Your task to perform on an android device: What's on my calendar tomorrow? Image 0: 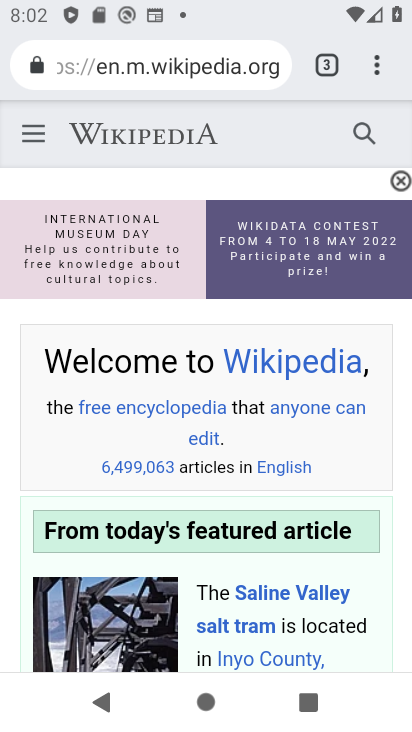
Step 0: press home button
Your task to perform on an android device: What's on my calendar tomorrow? Image 1: 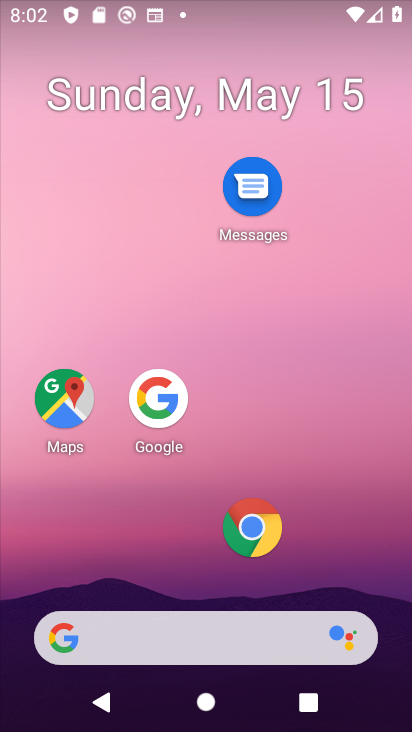
Step 1: drag from (129, 645) to (334, 69)
Your task to perform on an android device: What's on my calendar tomorrow? Image 2: 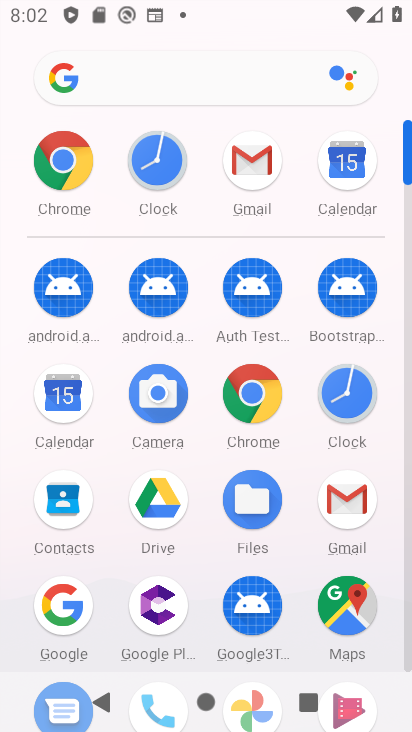
Step 2: click (81, 386)
Your task to perform on an android device: What's on my calendar tomorrow? Image 3: 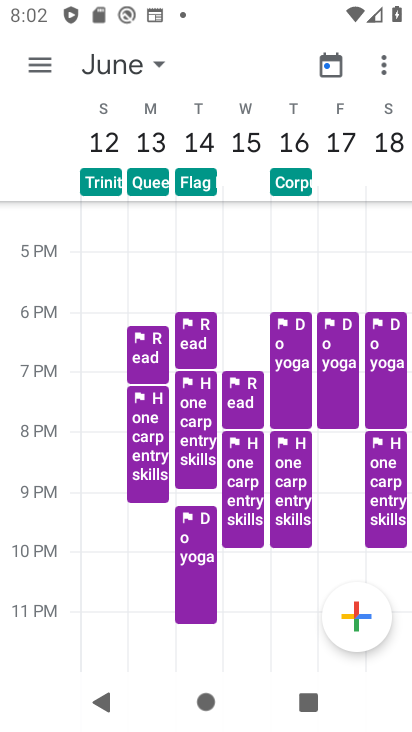
Step 3: click (118, 57)
Your task to perform on an android device: What's on my calendar tomorrow? Image 4: 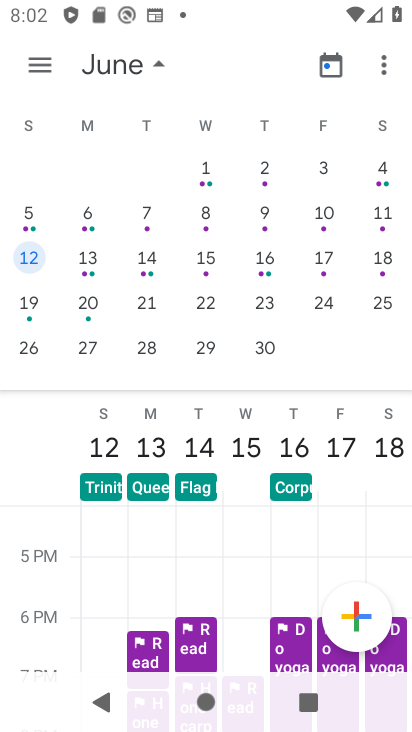
Step 4: drag from (108, 251) to (404, 283)
Your task to perform on an android device: What's on my calendar tomorrow? Image 5: 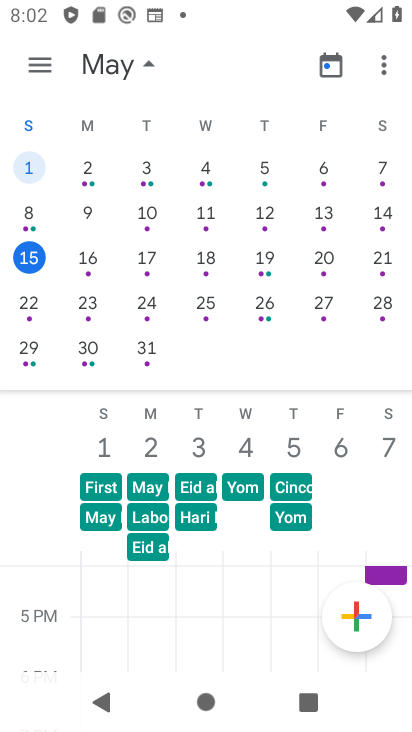
Step 5: drag from (46, 213) to (214, 245)
Your task to perform on an android device: What's on my calendar tomorrow? Image 6: 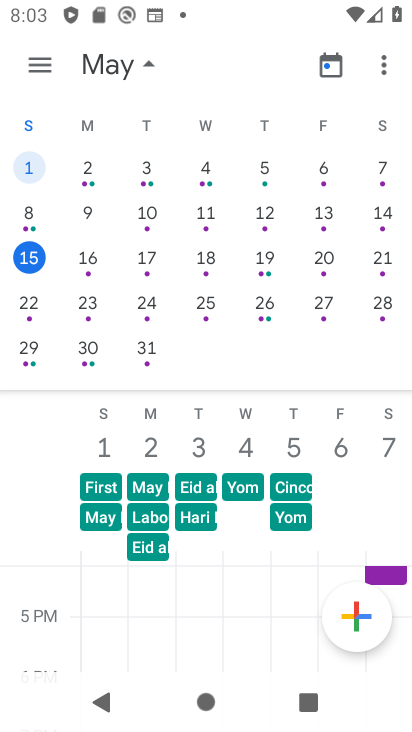
Step 6: click (87, 263)
Your task to perform on an android device: What's on my calendar tomorrow? Image 7: 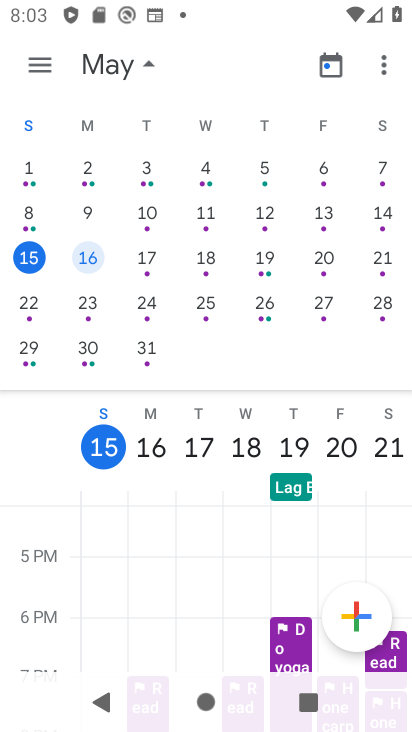
Step 7: click (44, 64)
Your task to perform on an android device: What's on my calendar tomorrow? Image 8: 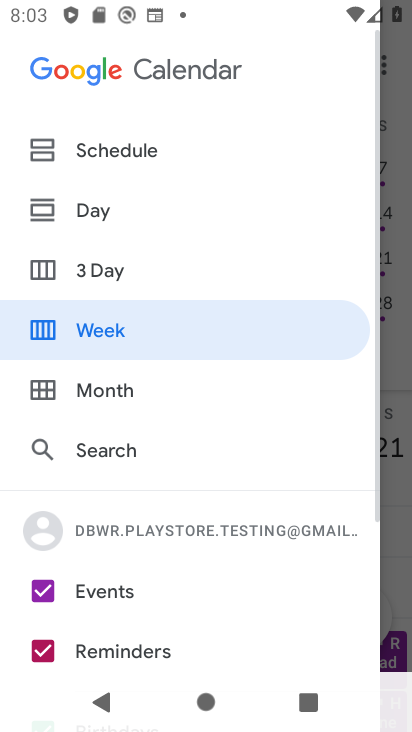
Step 8: click (94, 213)
Your task to perform on an android device: What's on my calendar tomorrow? Image 9: 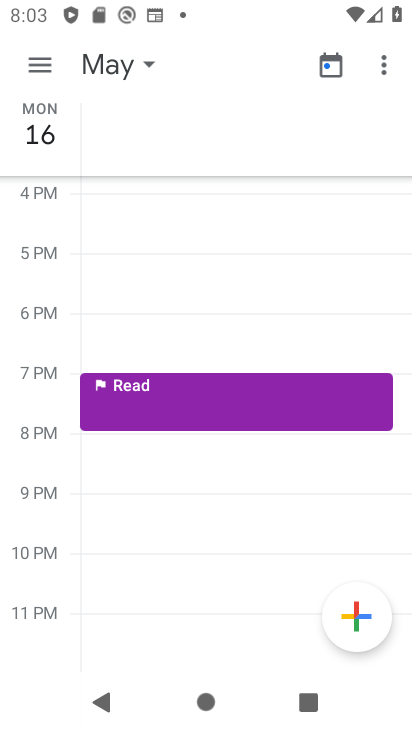
Step 9: click (37, 61)
Your task to perform on an android device: What's on my calendar tomorrow? Image 10: 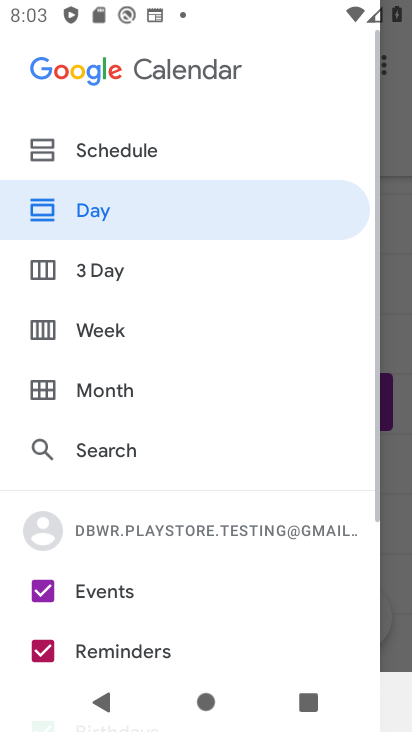
Step 10: click (125, 158)
Your task to perform on an android device: What's on my calendar tomorrow? Image 11: 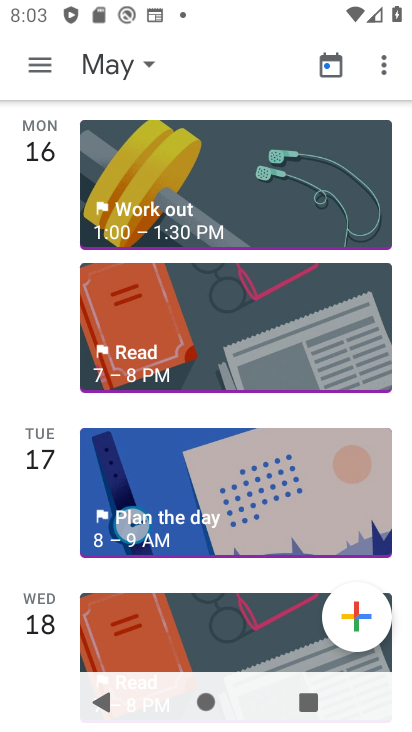
Step 11: task complete